Your task to perform on an android device: find which apps use the phone's location Image 0: 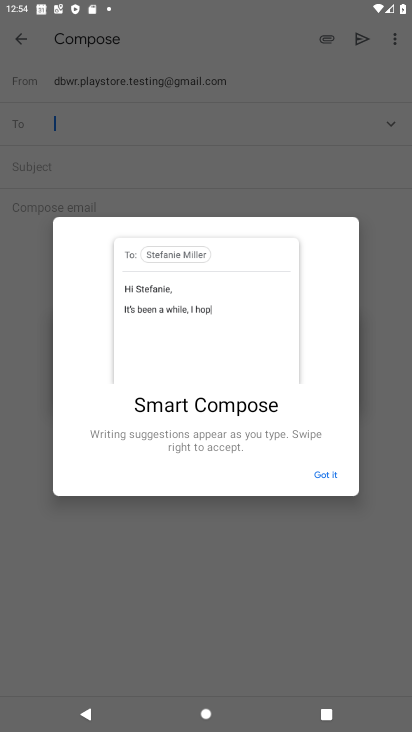
Step 0: press home button
Your task to perform on an android device: find which apps use the phone's location Image 1: 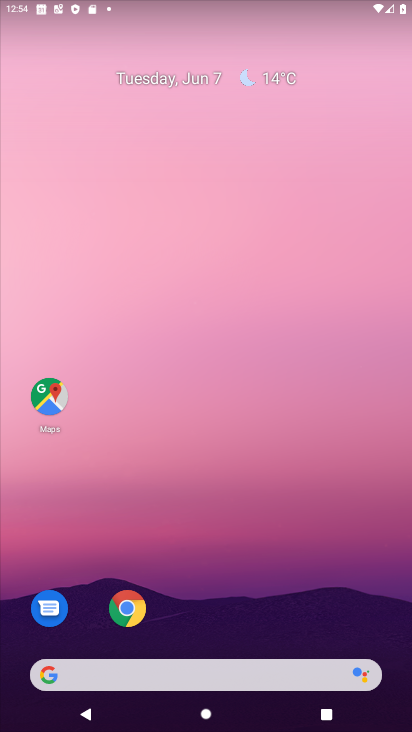
Step 1: drag from (278, 564) to (255, 151)
Your task to perform on an android device: find which apps use the phone's location Image 2: 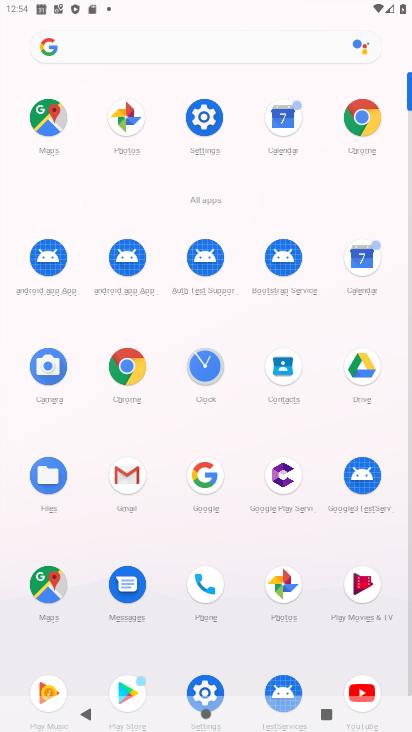
Step 2: click (203, 122)
Your task to perform on an android device: find which apps use the phone's location Image 3: 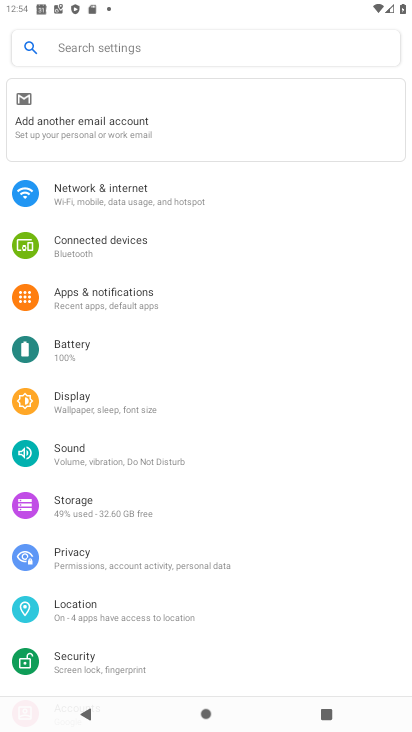
Step 3: click (93, 612)
Your task to perform on an android device: find which apps use the phone's location Image 4: 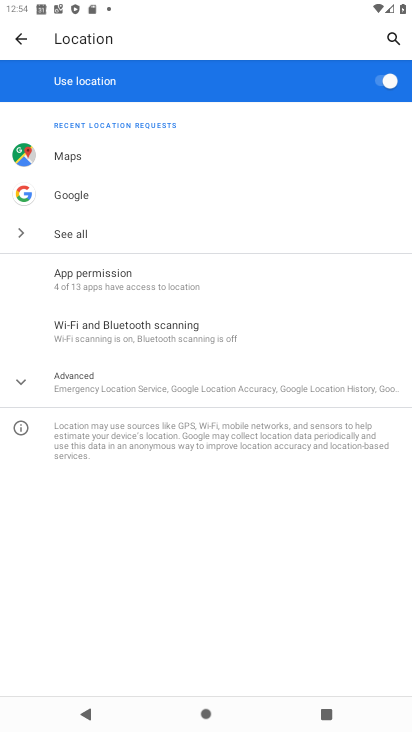
Step 4: click (98, 268)
Your task to perform on an android device: find which apps use the phone's location Image 5: 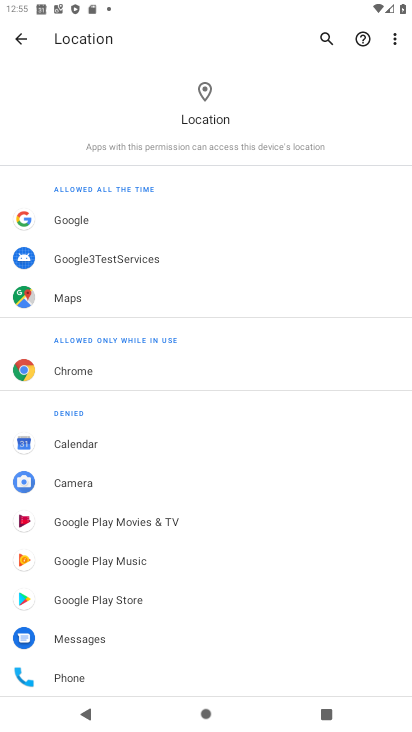
Step 5: task complete